Your task to perform on an android device: Open ESPN.com Image 0: 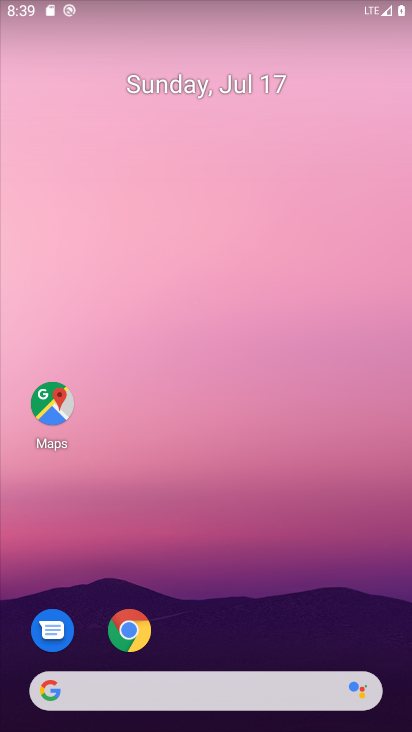
Step 0: click (134, 623)
Your task to perform on an android device: Open ESPN.com Image 1: 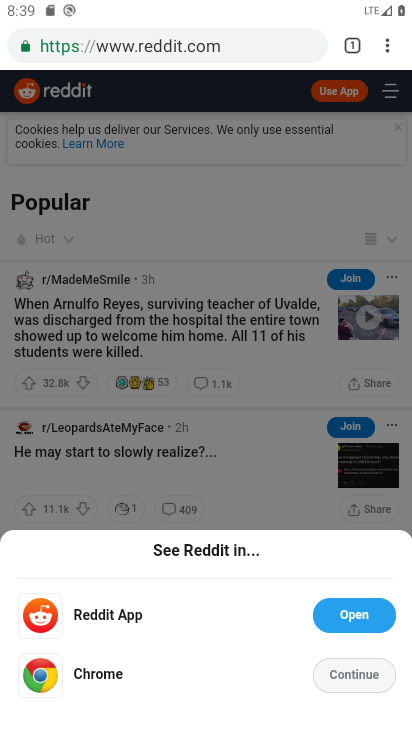
Step 1: click (201, 48)
Your task to perform on an android device: Open ESPN.com Image 2: 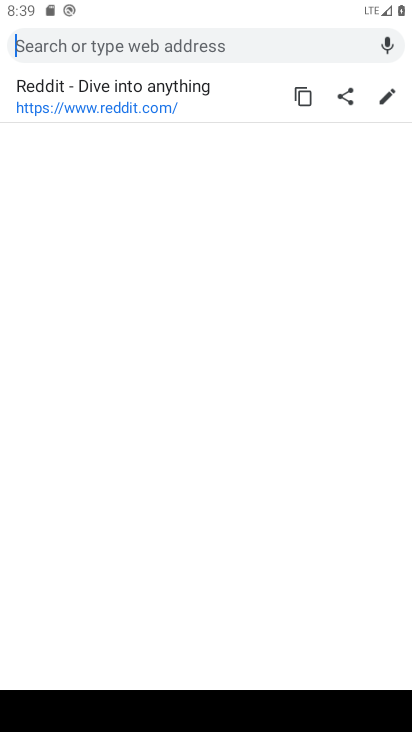
Step 2: type "ESPN.com"
Your task to perform on an android device: Open ESPN.com Image 3: 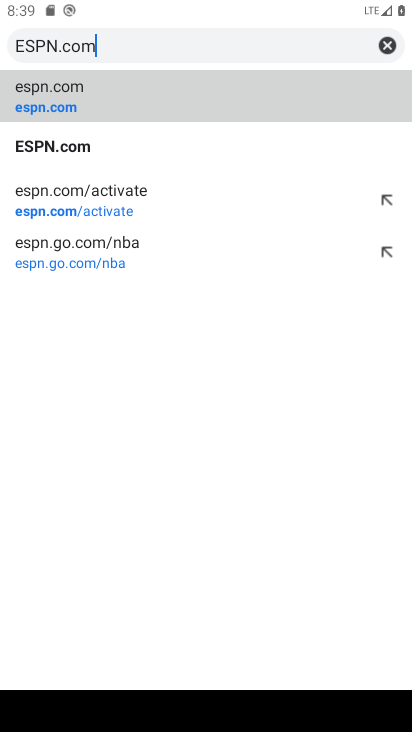
Step 3: click (104, 96)
Your task to perform on an android device: Open ESPN.com Image 4: 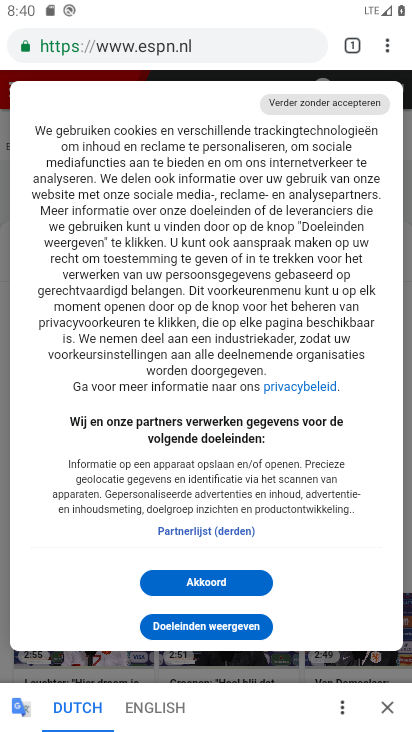
Step 4: task complete